Your task to perform on an android device: turn off javascript in the chrome app Image 0: 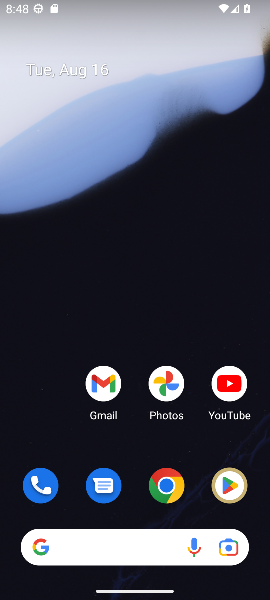
Step 0: click (170, 486)
Your task to perform on an android device: turn off javascript in the chrome app Image 1: 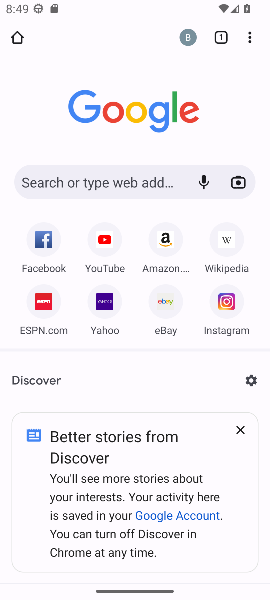
Step 1: click (252, 38)
Your task to perform on an android device: turn off javascript in the chrome app Image 2: 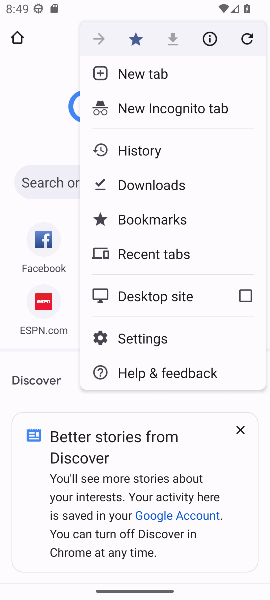
Step 2: click (150, 328)
Your task to perform on an android device: turn off javascript in the chrome app Image 3: 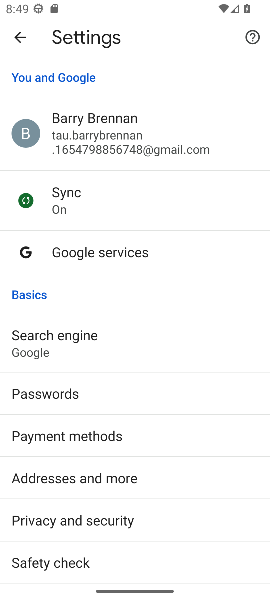
Step 3: drag from (181, 493) to (141, 314)
Your task to perform on an android device: turn off javascript in the chrome app Image 4: 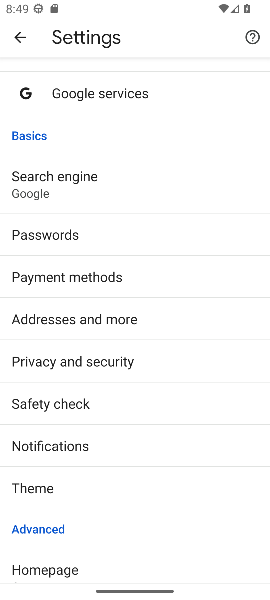
Step 4: drag from (125, 487) to (103, 392)
Your task to perform on an android device: turn off javascript in the chrome app Image 5: 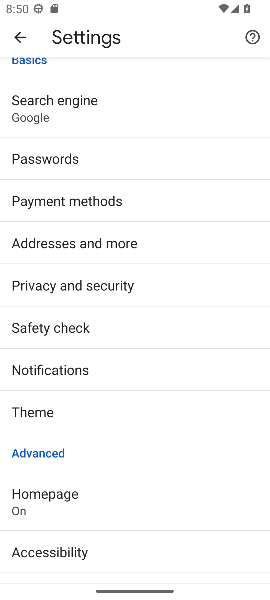
Step 5: drag from (125, 471) to (93, 313)
Your task to perform on an android device: turn off javascript in the chrome app Image 6: 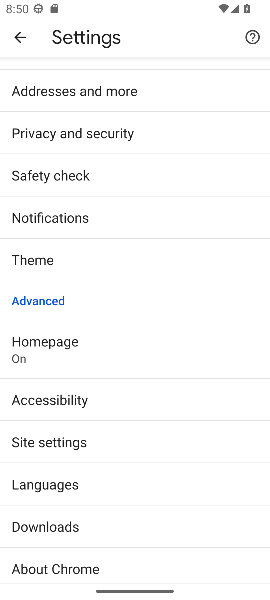
Step 6: click (103, 436)
Your task to perform on an android device: turn off javascript in the chrome app Image 7: 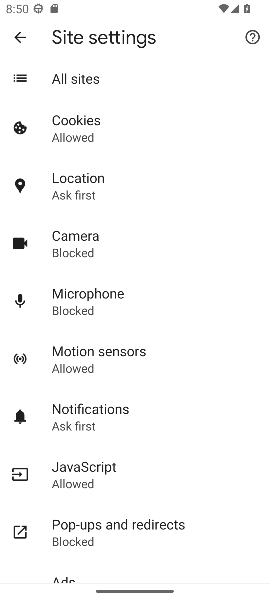
Step 7: click (117, 476)
Your task to perform on an android device: turn off javascript in the chrome app Image 8: 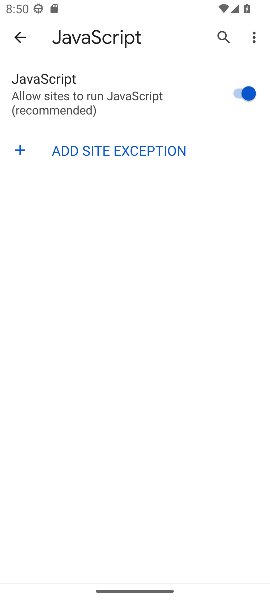
Step 8: click (240, 98)
Your task to perform on an android device: turn off javascript in the chrome app Image 9: 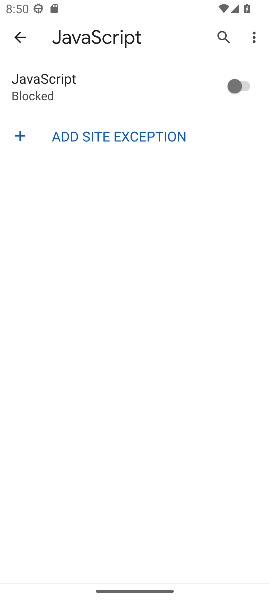
Step 9: task complete